Your task to perform on an android device: change your default location settings in chrome Image 0: 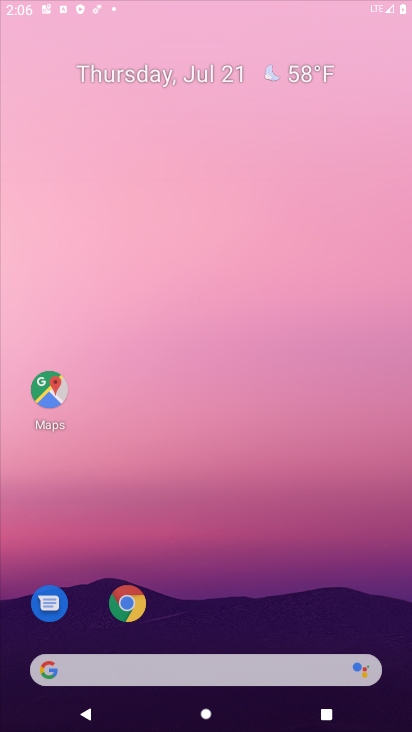
Step 0: drag from (256, 332) to (215, 36)
Your task to perform on an android device: change your default location settings in chrome Image 1: 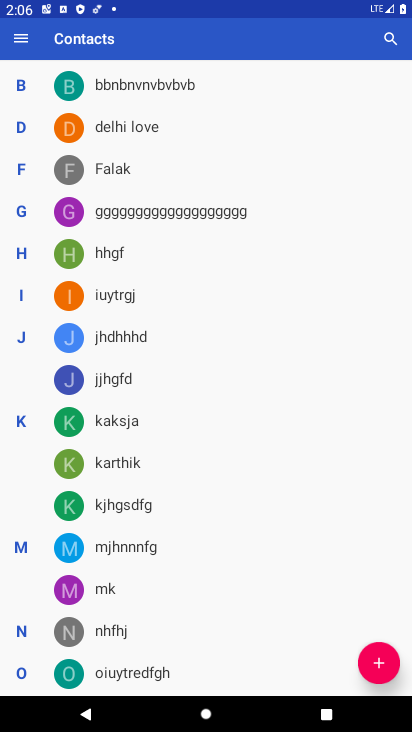
Step 1: press home button
Your task to perform on an android device: change your default location settings in chrome Image 2: 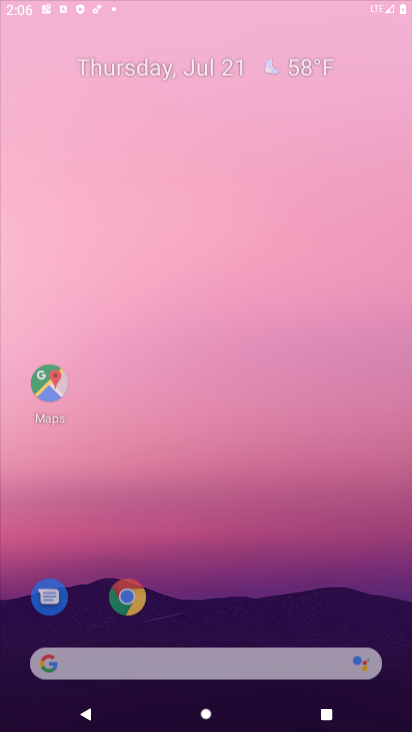
Step 2: drag from (306, 651) to (173, 26)
Your task to perform on an android device: change your default location settings in chrome Image 3: 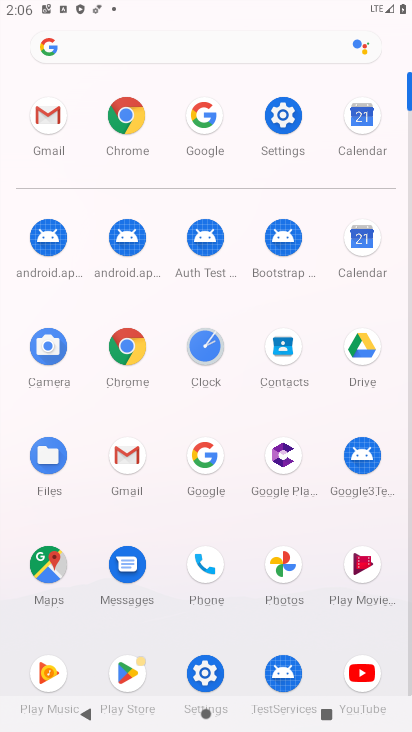
Step 3: click (125, 120)
Your task to perform on an android device: change your default location settings in chrome Image 4: 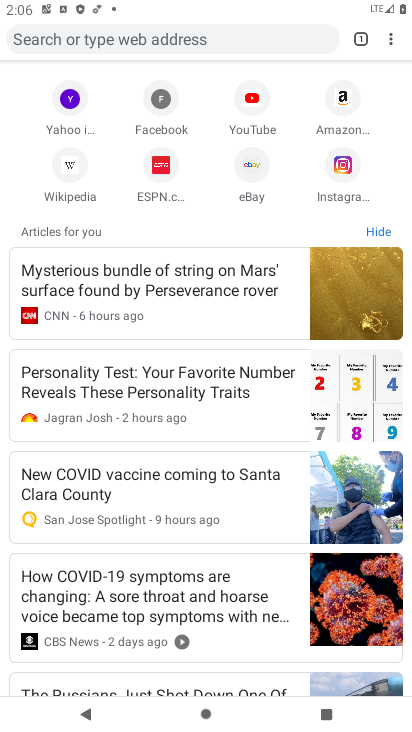
Step 4: click (392, 41)
Your task to perform on an android device: change your default location settings in chrome Image 5: 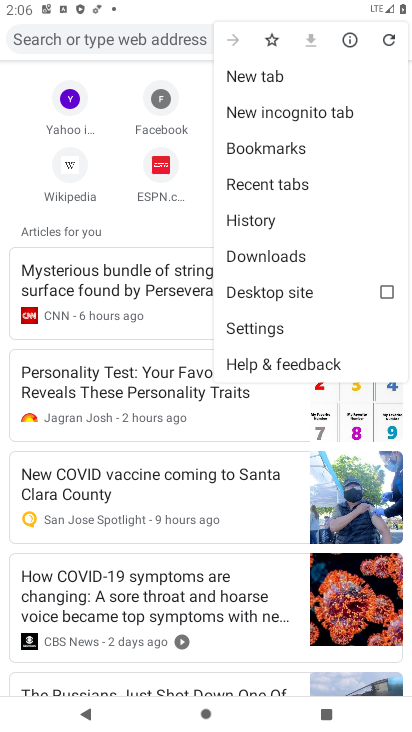
Step 5: click (269, 335)
Your task to perform on an android device: change your default location settings in chrome Image 6: 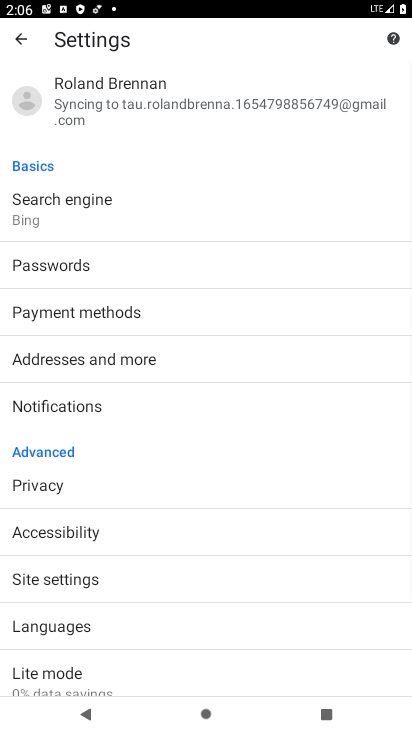
Step 6: click (44, 215)
Your task to perform on an android device: change your default location settings in chrome Image 7: 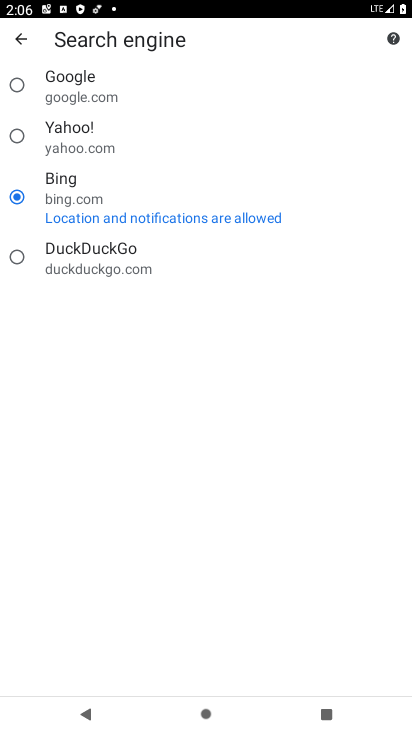
Step 7: click (77, 83)
Your task to perform on an android device: change your default location settings in chrome Image 8: 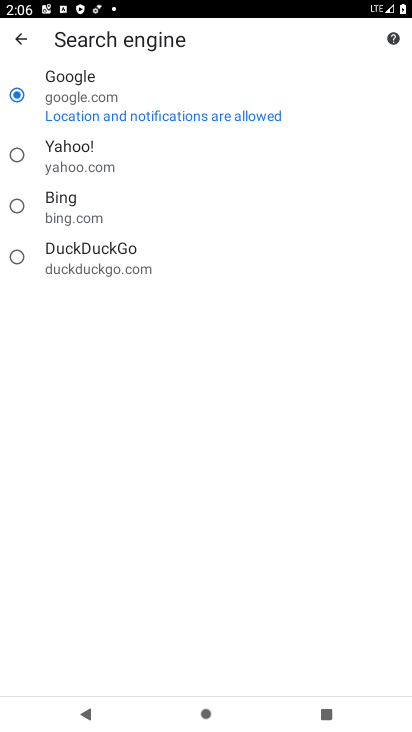
Step 8: task complete